Your task to perform on an android device: refresh tabs in the chrome app Image 0: 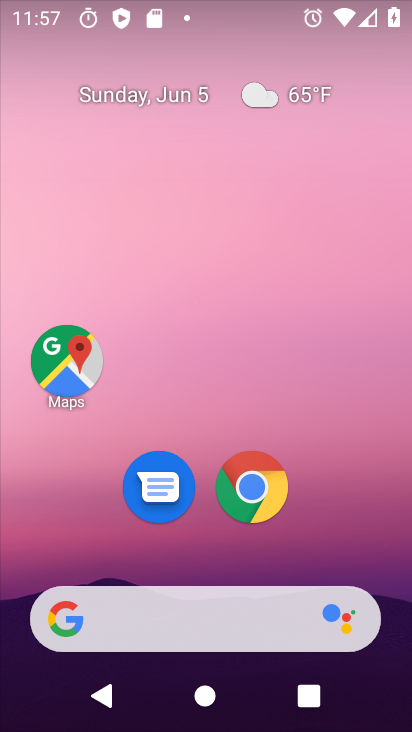
Step 0: click (252, 486)
Your task to perform on an android device: refresh tabs in the chrome app Image 1: 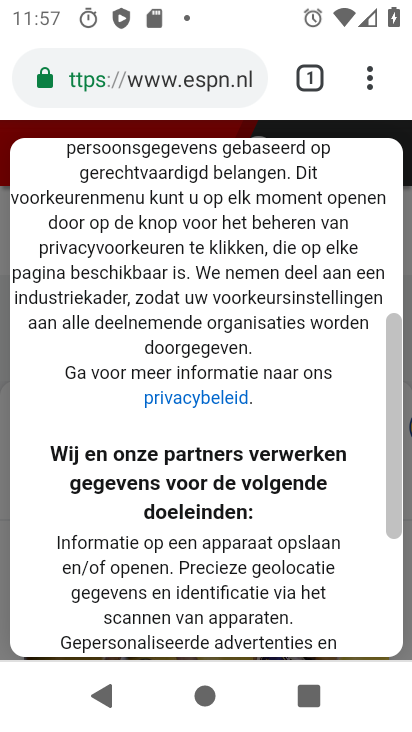
Step 1: click (370, 80)
Your task to perform on an android device: refresh tabs in the chrome app Image 2: 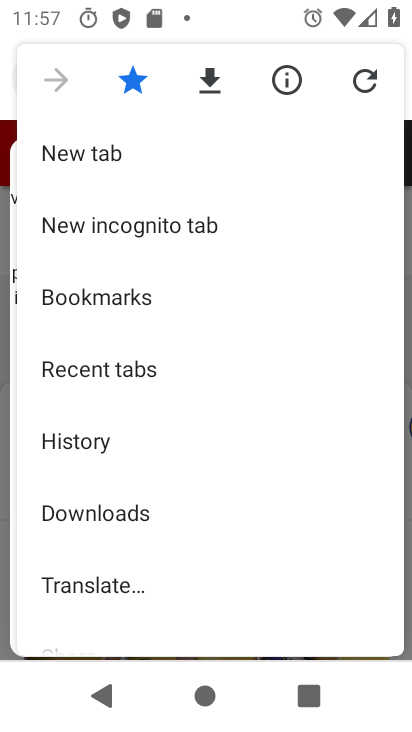
Step 2: click (368, 78)
Your task to perform on an android device: refresh tabs in the chrome app Image 3: 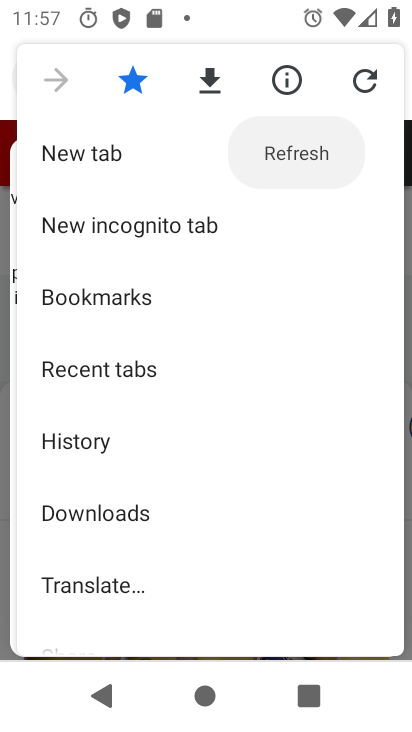
Step 3: click (367, 76)
Your task to perform on an android device: refresh tabs in the chrome app Image 4: 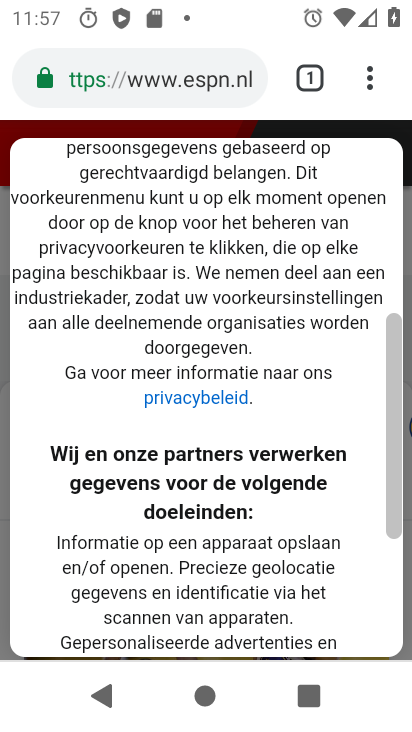
Step 4: task complete